Your task to perform on an android device: Search for seafood restaurants on Google Maps Image 0: 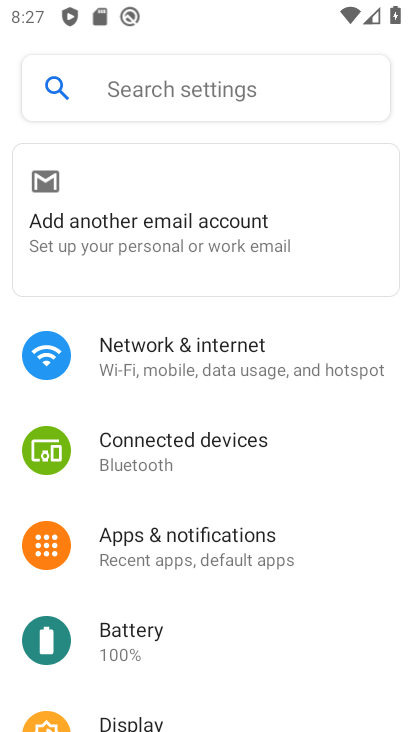
Step 0: press back button
Your task to perform on an android device: Search for seafood restaurants on Google Maps Image 1: 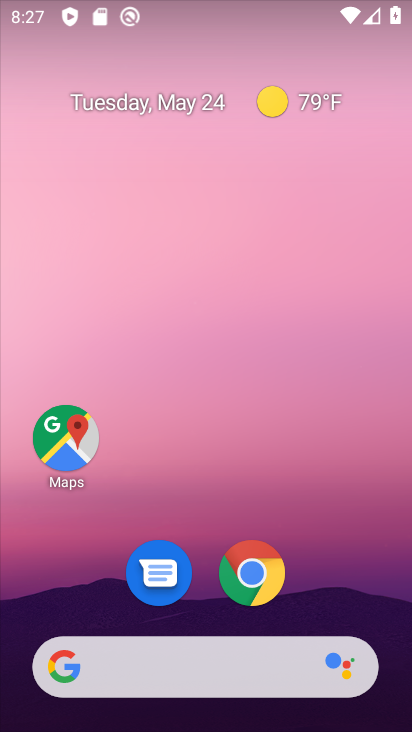
Step 1: drag from (229, 668) to (190, 23)
Your task to perform on an android device: Search for seafood restaurants on Google Maps Image 2: 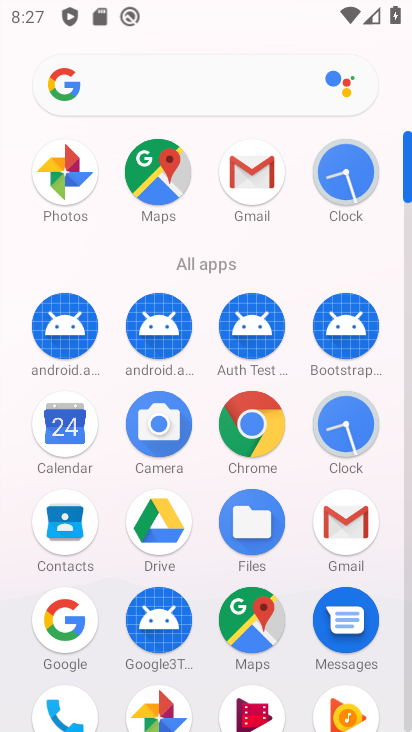
Step 2: click (140, 166)
Your task to perform on an android device: Search for seafood restaurants on Google Maps Image 3: 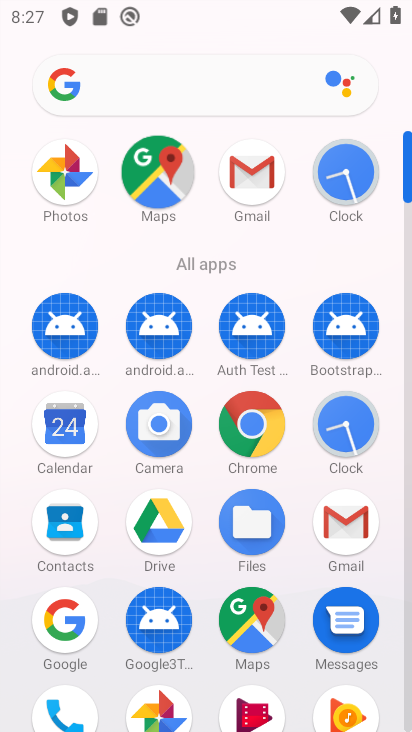
Step 3: click (144, 169)
Your task to perform on an android device: Search for seafood restaurants on Google Maps Image 4: 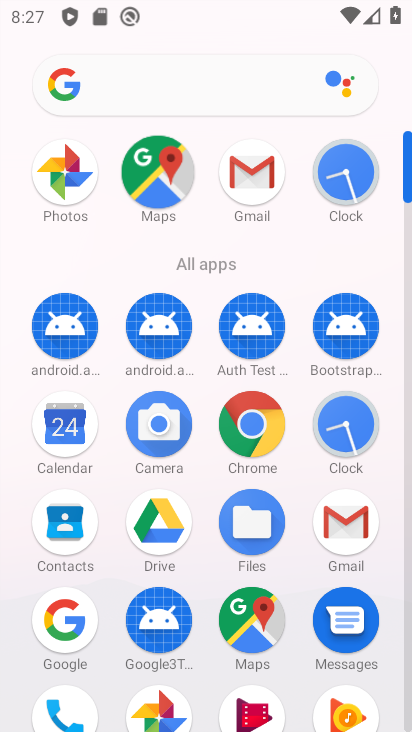
Step 4: click (144, 169)
Your task to perform on an android device: Search for seafood restaurants on Google Maps Image 5: 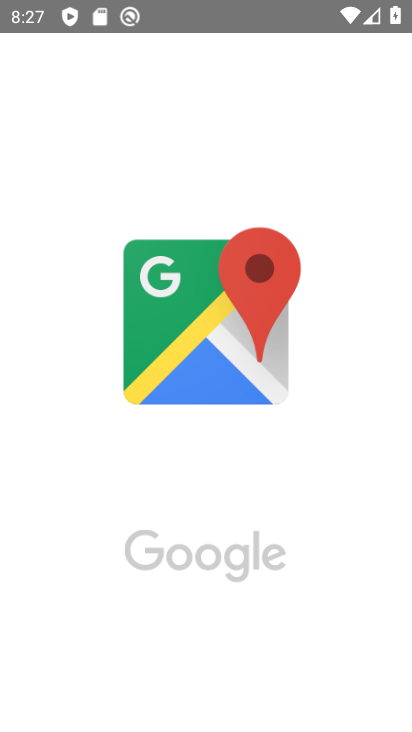
Step 5: click (144, 169)
Your task to perform on an android device: Search for seafood restaurants on Google Maps Image 6: 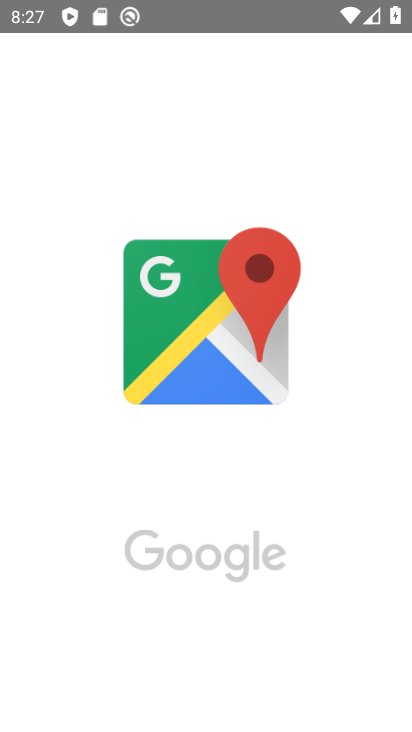
Step 6: click (144, 169)
Your task to perform on an android device: Search for seafood restaurants on Google Maps Image 7: 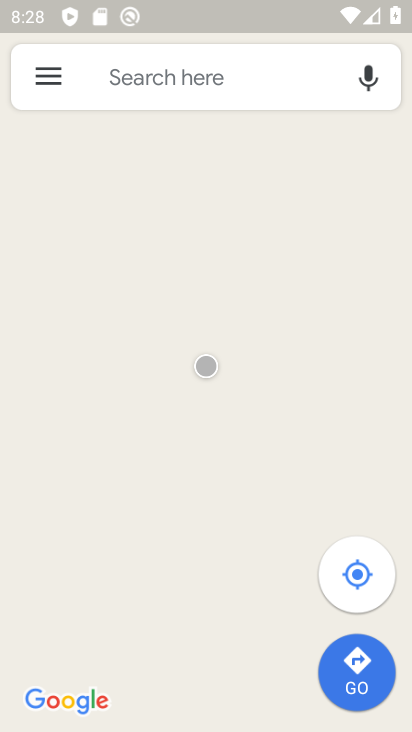
Step 7: click (116, 83)
Your task to perform on an android device: Search for seafood restaurants on Google Maps Image 8: 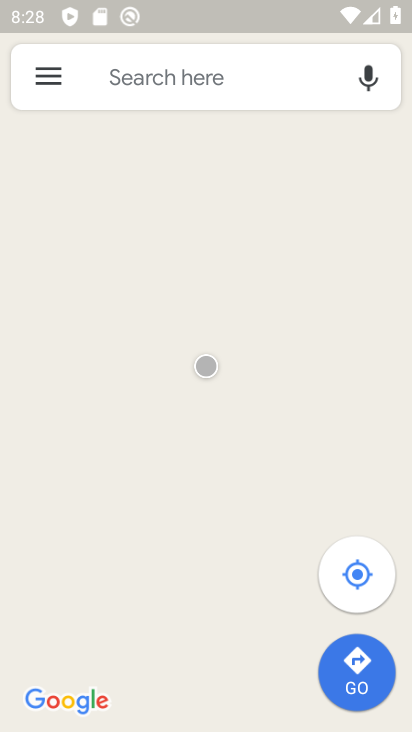
Step 8: click (90, 75)
Your task to perform on an android device: Search for seafood restaurants on Google Maps Image 9: 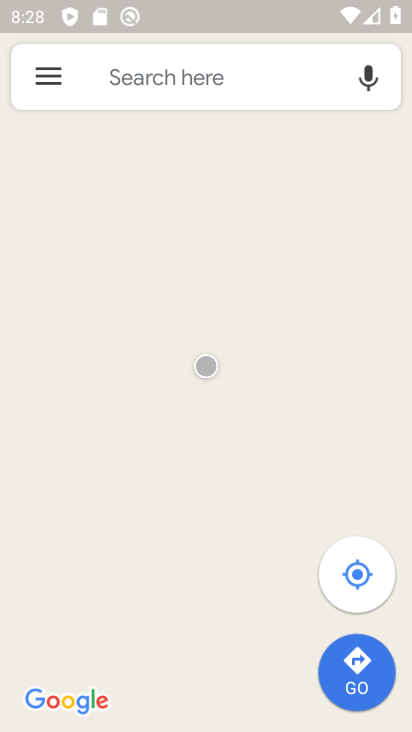
Step 9: click (90, 75)
Your task to perform on an android device: Search for seafood restaurants on Google Maps Image 10: 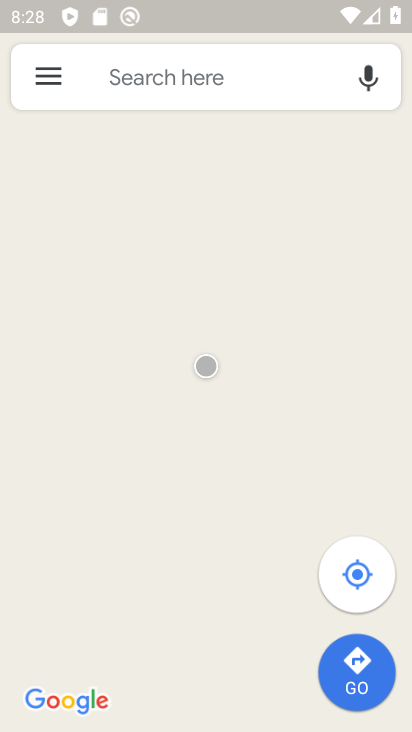
Step 10: click (90, 75)
Your task to perform on an android device: Search for seafood restaurants on Google Maps Image 11: 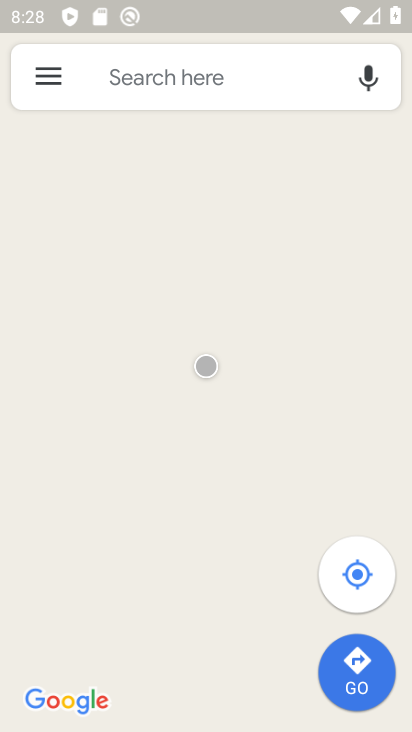
Step 11: click (97, 74)
Your task to perform on an android device: Search for seafood restaurants on Google Maps Image 12: 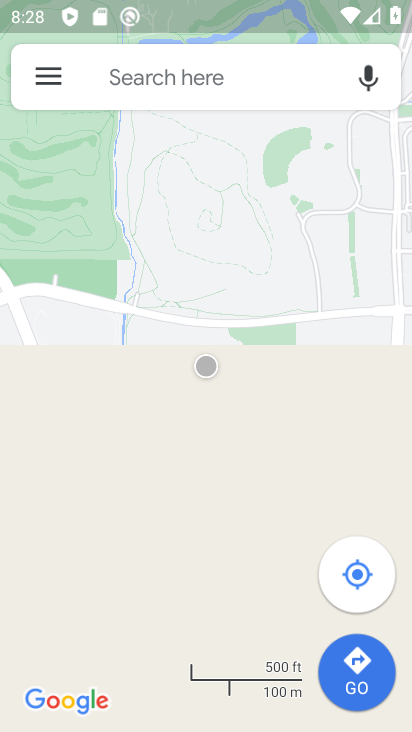
Step 12: click (116, 58)
Your task to perform on an android device: Search for seafood restaurants on Google Maps Image 13: 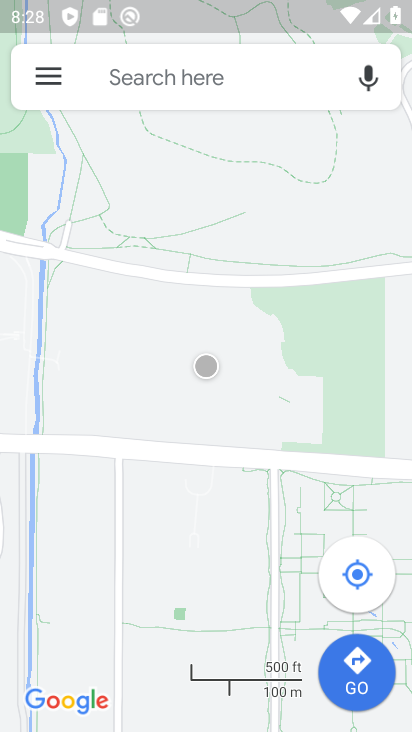
Step 13: click (129, 63)
Your task to perform on an android device: Search for seafood restaurants on Google Maps Image 14: 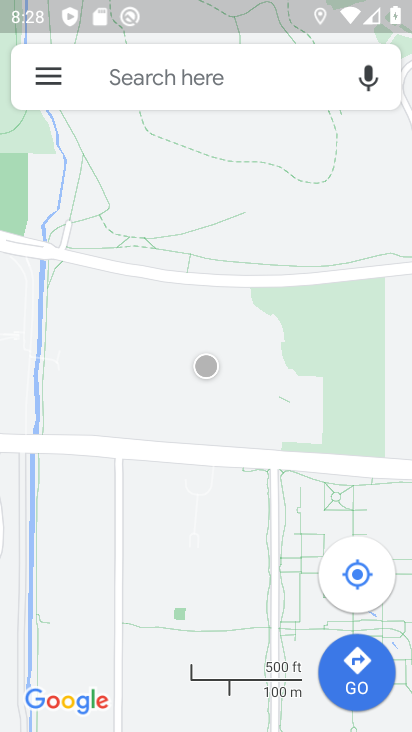
Step 14: click (117, 91)
Your task to perform on an android device: Search for seafood restaurants on Google Maps Image 15: 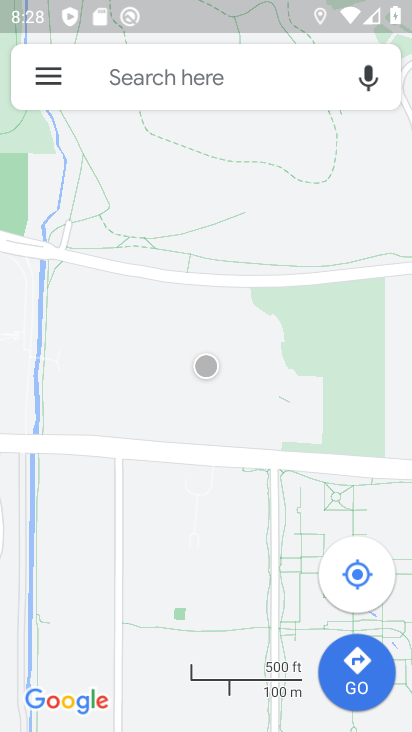
Step 15: click (116, 90)
Your task to perform on an android device: Search for seafood restaurants on Google Maps Image 16: 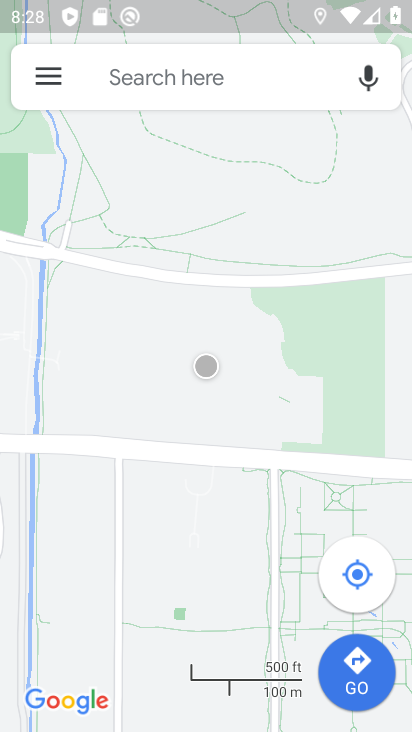
Step 16: click (115, 88)
Your task to perform on an android device: Search for seafood restaurants on Google Maps Image 17: 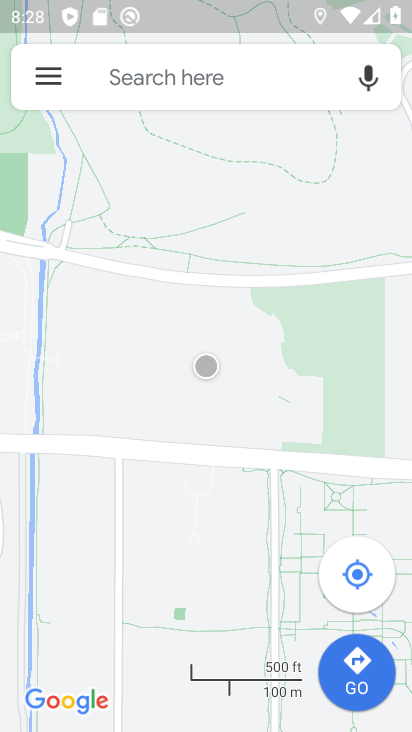
Step 17: click (115, 87)
Your task to perform on an android device: Search for seafood restaurants on Google Maps Image 18: 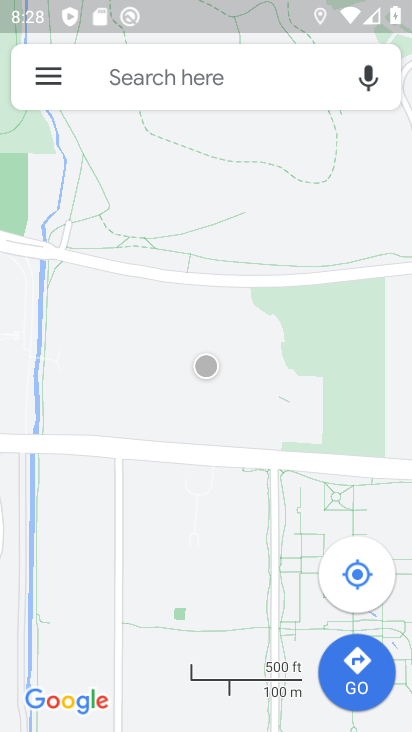
Step 18: click (121, 82)
Your task to perform on an android device: Search for seafood restaurants on Google Maps Image 19: 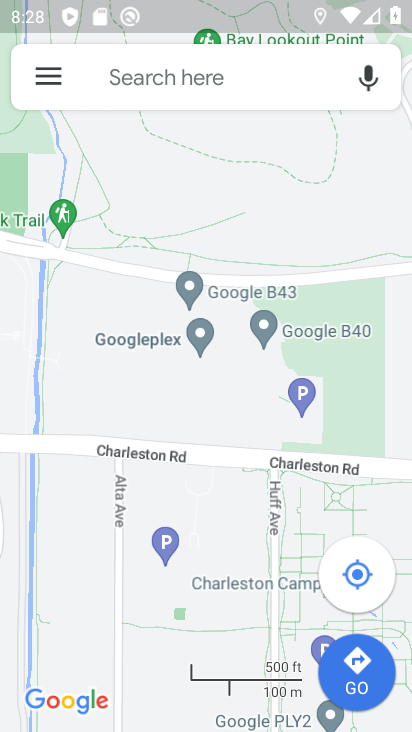
Step 19: click (121, 82)
Your task to perform on an android device: Search for seafood restaurants on Google Maps Image 20: 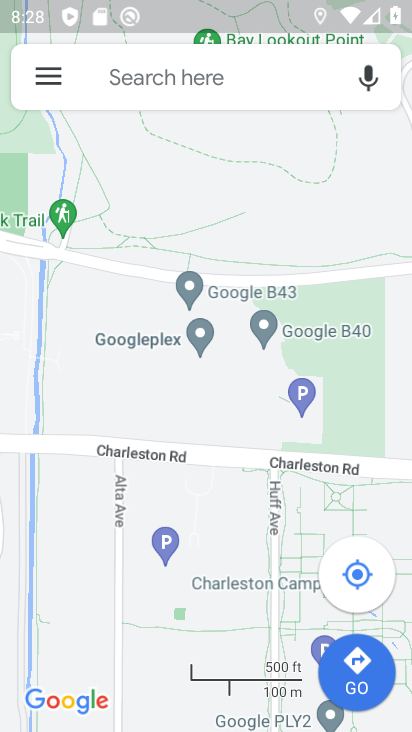
Step 20: click (123, 81)
Your task to perform on an android device: Search for seafood restaurants on Google Maps Image 21: 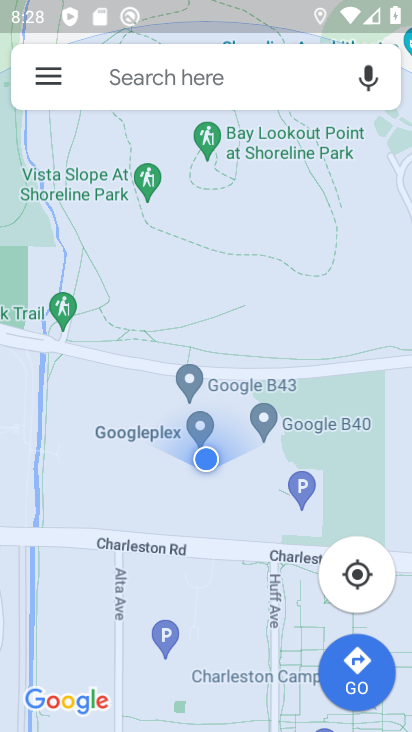
Step 21: click (127, 68)
Your task to perform on an android device: Search for seafood restaurants on Google Maps Image 22: 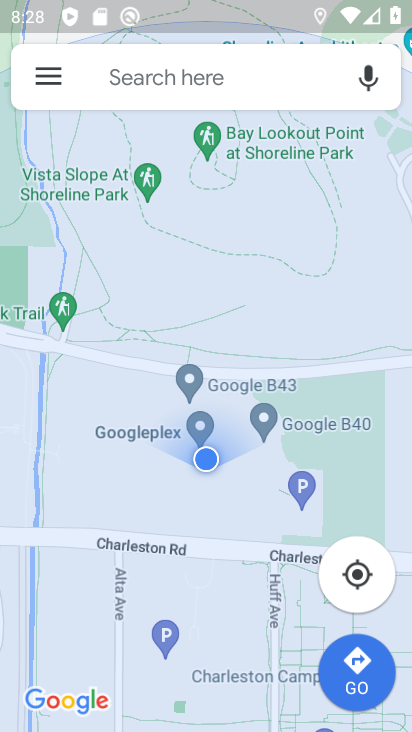
Step 22: click (127, 68)
Your task to perform on an android device: Search for seafood restaurants on Google Maps Image 23: 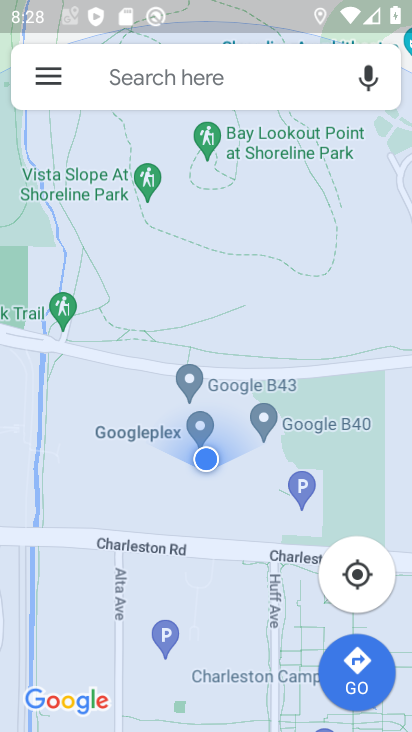
Step 23: click (127, 68)
Your task to perform on an android device: Search for seafood restaurants on Google Maps Image 24: 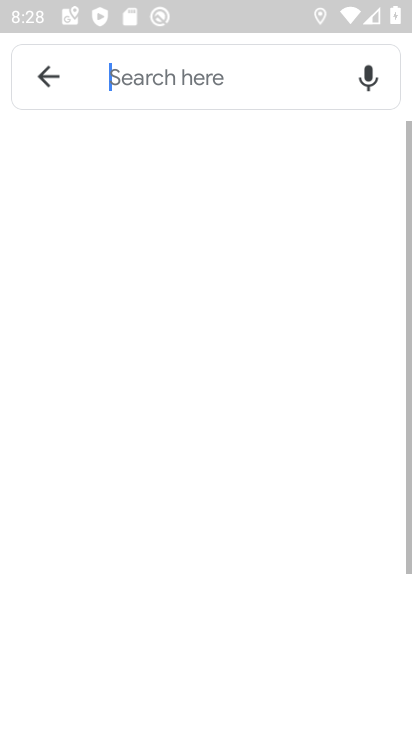
Step 24: click (127, 68)
Your task to perform on an android device: Search for seafood restaurants on Google Maps Image 25: 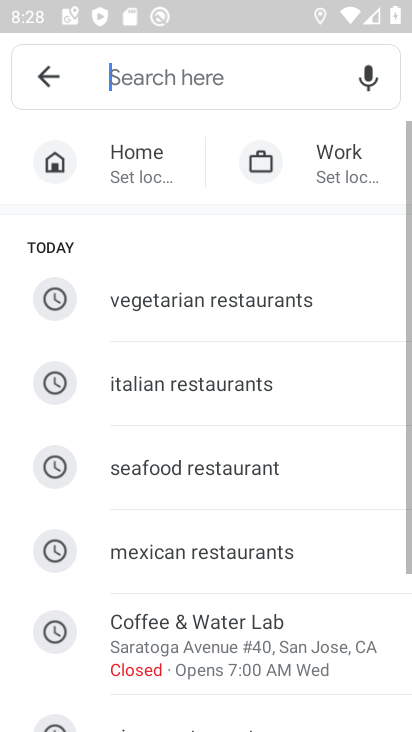
Step 25: click (127, 68)
Your task to perform on an android device: Search for seafood restaurants on Google Maps Image 26: 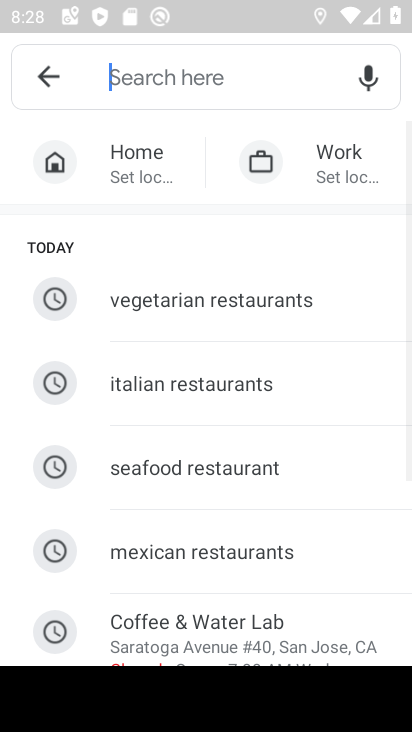
Step 26: click (184, 472)
Your task to perform on an android device: Search for seafood restaurants on Google Maps Image 27: 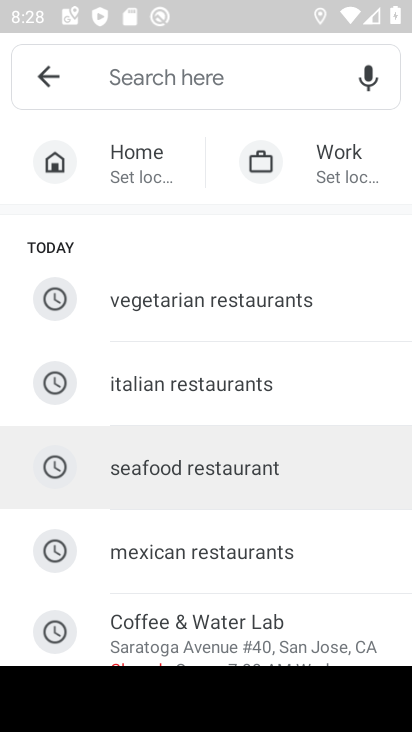
Step 27: click (186, 459)
Your task to perform on an android device: Search for seafood restaurants on Google Maps Image 28: 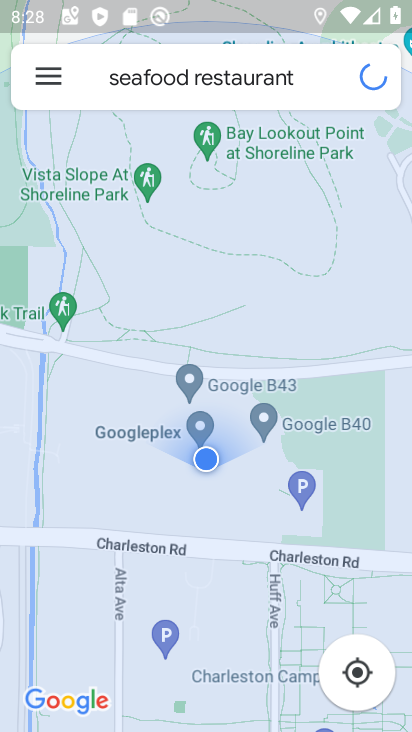
Step 28: click (187, 459)
Your task to perform on an android device: Search for seafood restaurants on Google Maps Image 29: 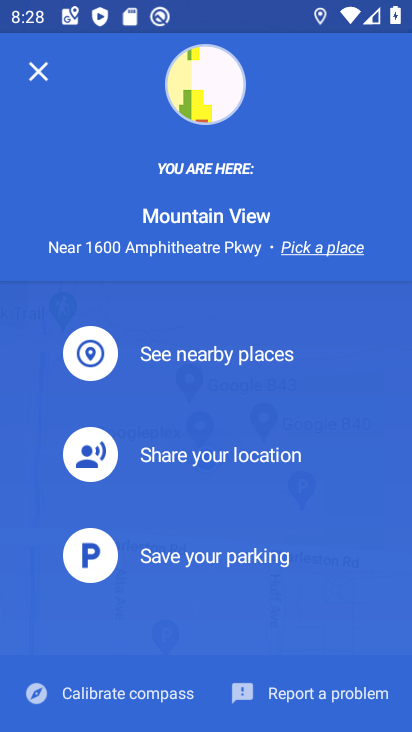
Step 29: task complete